Your task to perform on an android device: turn off data saver in the chrome app Image 0: 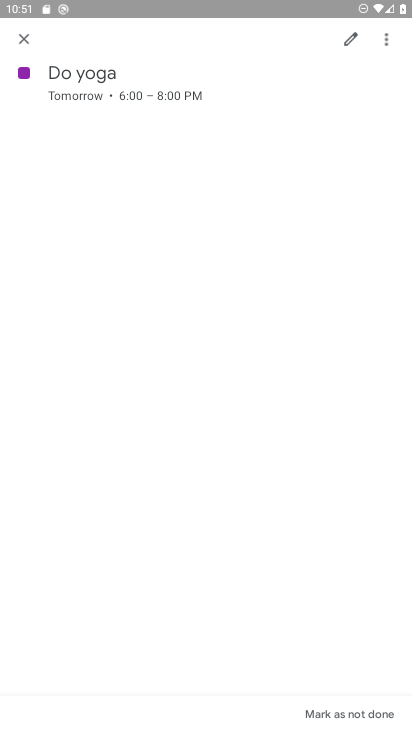
Step 0: press home button
Your task to perform on an android device: turn off data saver in the chrome app Image 1: 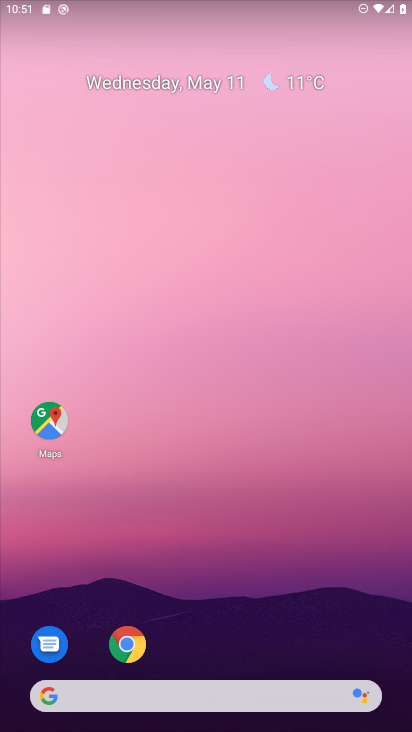
Step 1: click (128, 650)
Your task to perform on an android device: turn off data saver in the chrome app Image 2: 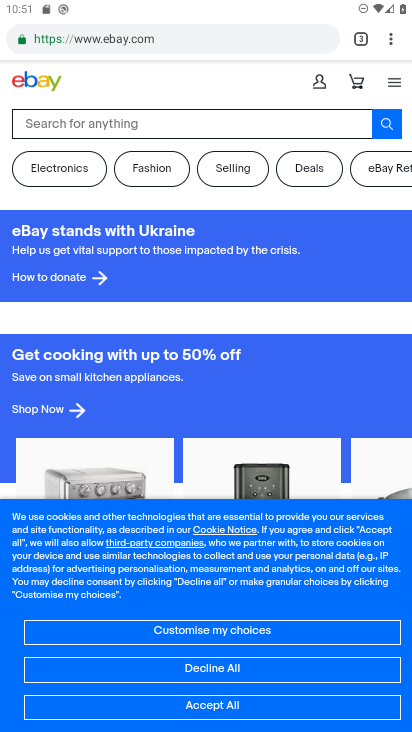
Step 2: drag from (391, 38) to (260, 472)
Your task to perform on an android device: turn off data saver in the chrome app Image 3: 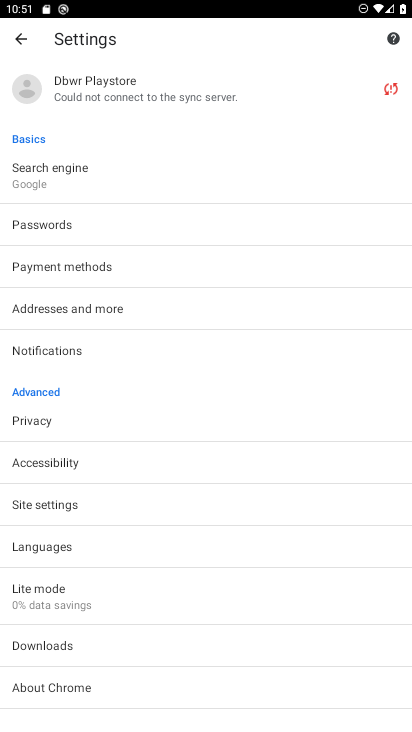
Step 3: click (67, 601)
Your task to perform on an android device: turn off data saver in the chrome app Image 4: 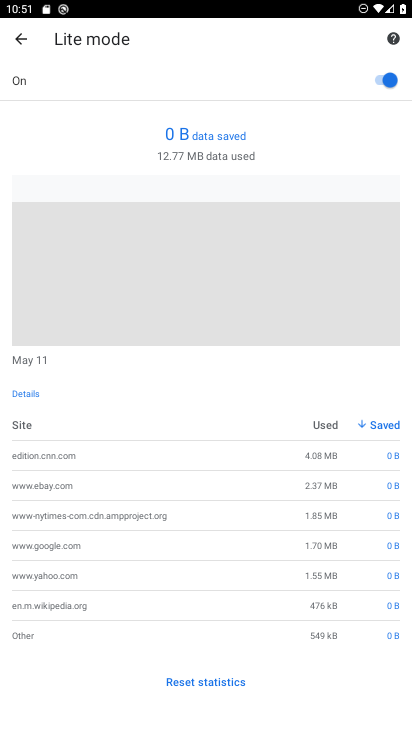
Step 4: click (380, 81)
Your task to perform on an android device: turn off data saver in the chrome app Image 5: 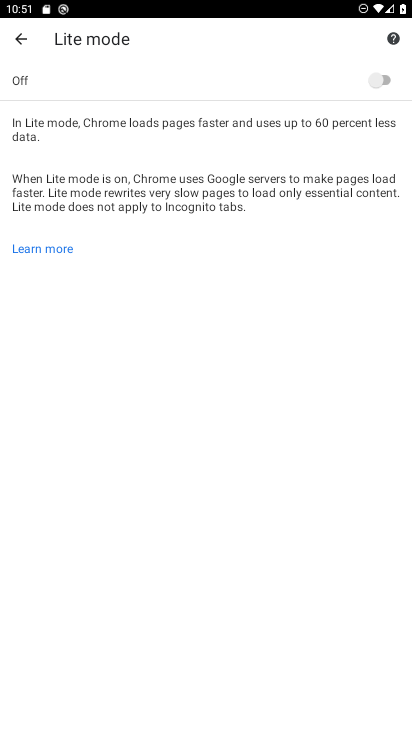
Step 5: task complete